Your task to perform on an android device: Open Google Chrome Image 0: 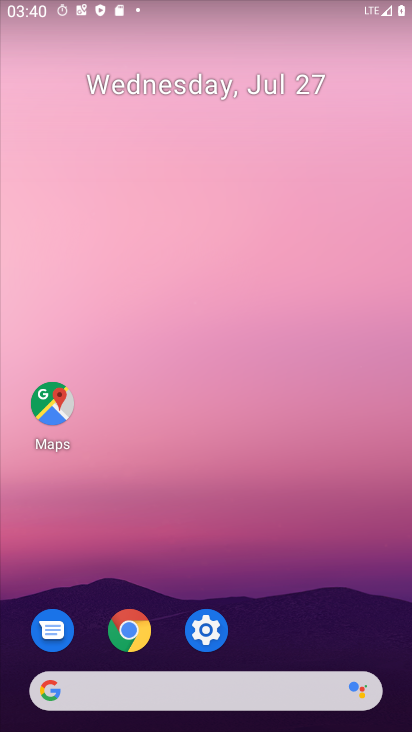
Step 0: drag from (216, 626) to (146, 57)
Your task to perform on an android device: Open Google Chrome Image 1: 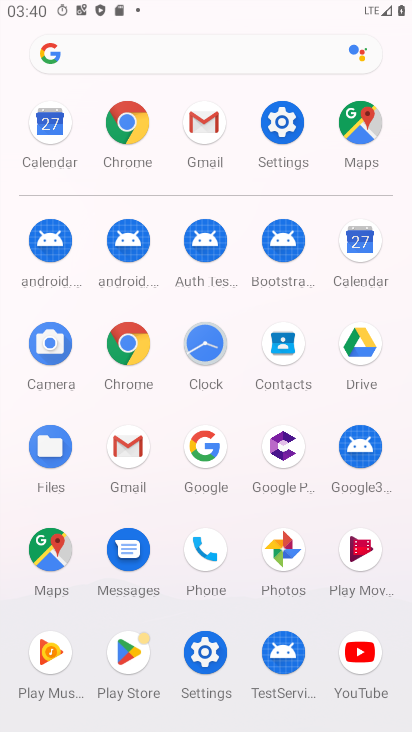
Step 1: click (166, 96)
Your task to perform on an android device: Open Google Chrome Image 2: 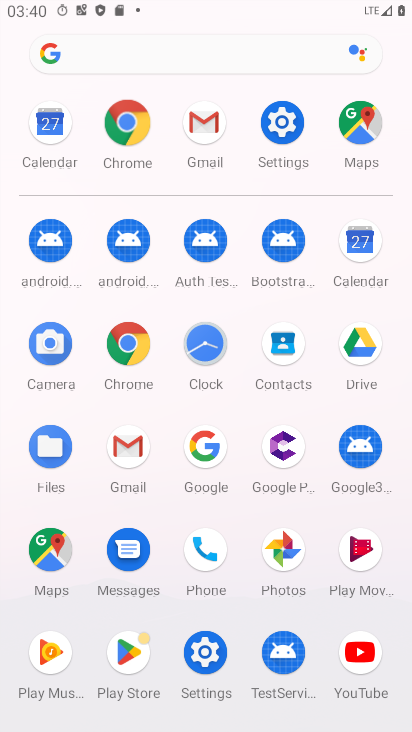
Step 2: click (245, 138)
Your task to perform on an android device: Open Google Chrome Image 3: 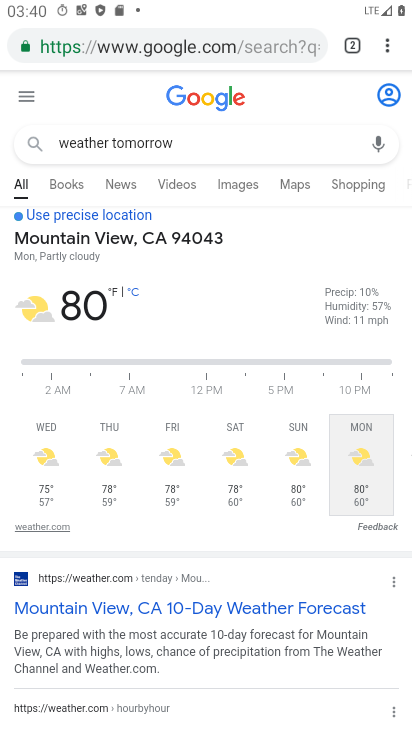
Step 3: task complete